Your task to perform on an android device: Open calendar and show me the first week of next month Image 0: 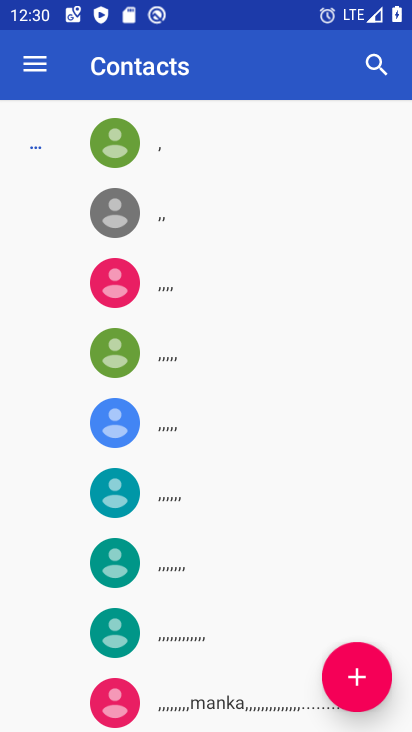
Step 0: press home button
Your task to perform on an android device: Open calendar and show me the first week of next month Image 1: 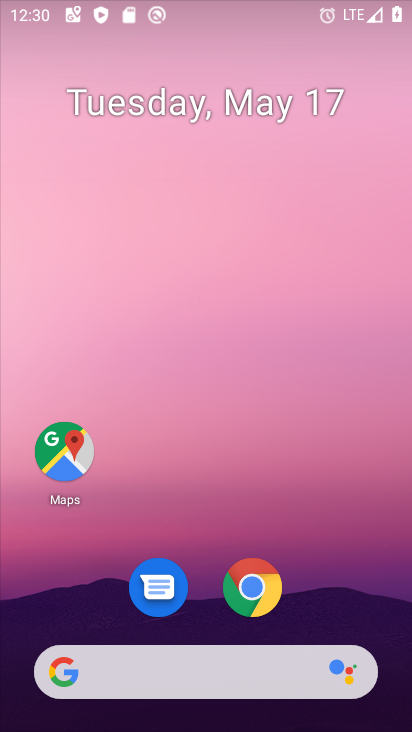
Step 1: drag from (404, 634) to (234, 62)
Your task to perform on an android device: Open calendar and show me the first week of next month Image 2: 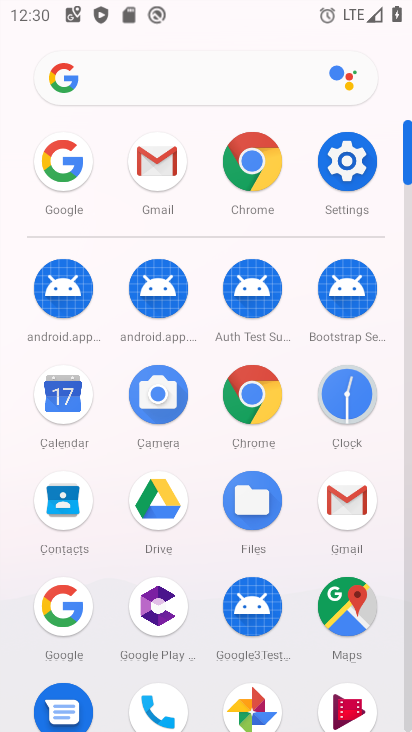
Step 2: click (52, 400)
Your task to perform on an android device: Open calendar and show me the first week of next month Image 3: 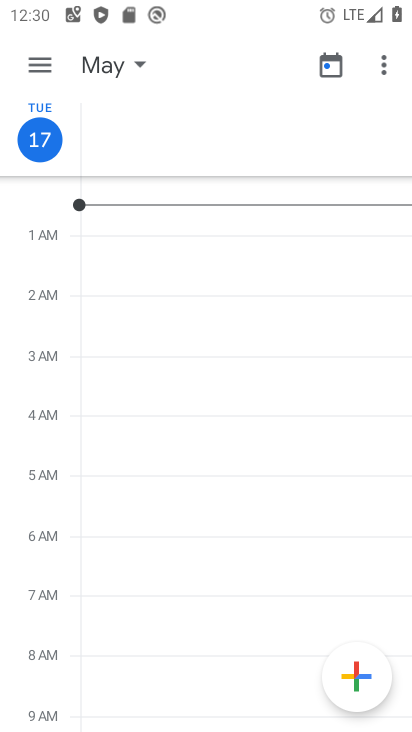
Step 3: click (107, 66)
Your task to perform on an android device: Open calendar and show me the first week of next month Image 4: 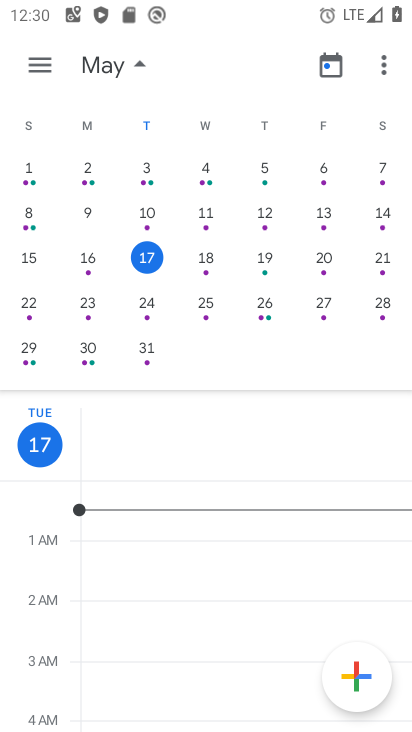
Step 4: drag from (362, 287) to (23, 280)
Your task to perform on an android device: Open calendar and show me the first week of next month Image 5: 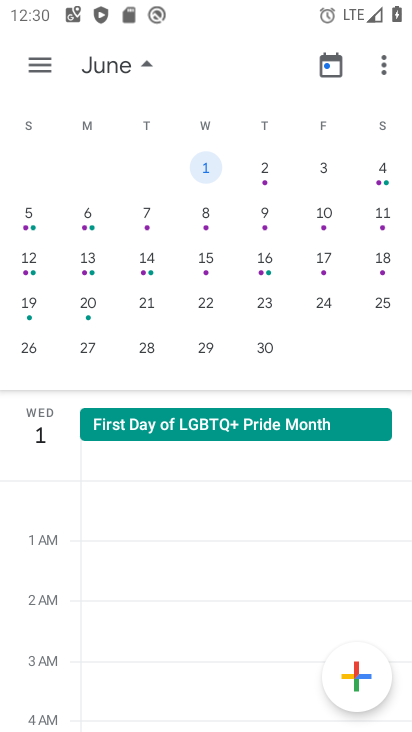
Step 5: click (16, 219)
Your task to perform on an android device: Open calendar and show me the first week of next month Image 6: 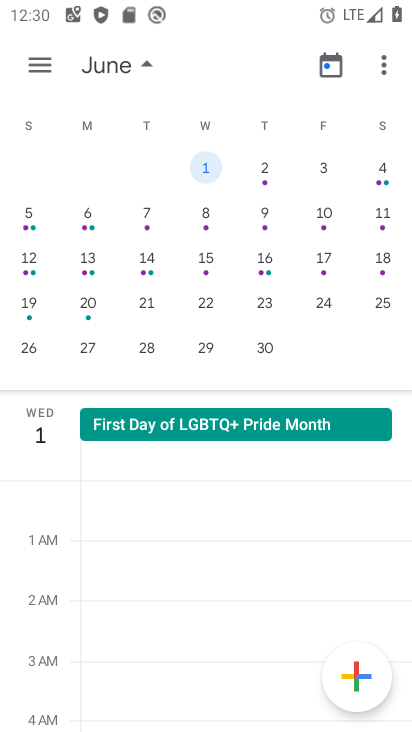
Step 6: click (35, 219)
Your task to perform on an android device: Open calendar and show me the first week of next month Image 7: 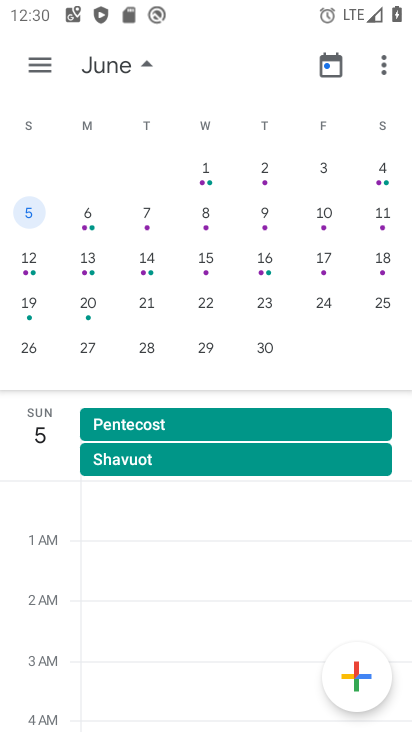
Step 7: task complete